Your task to perform on an android device: see creations saved in the google photos Image 0: 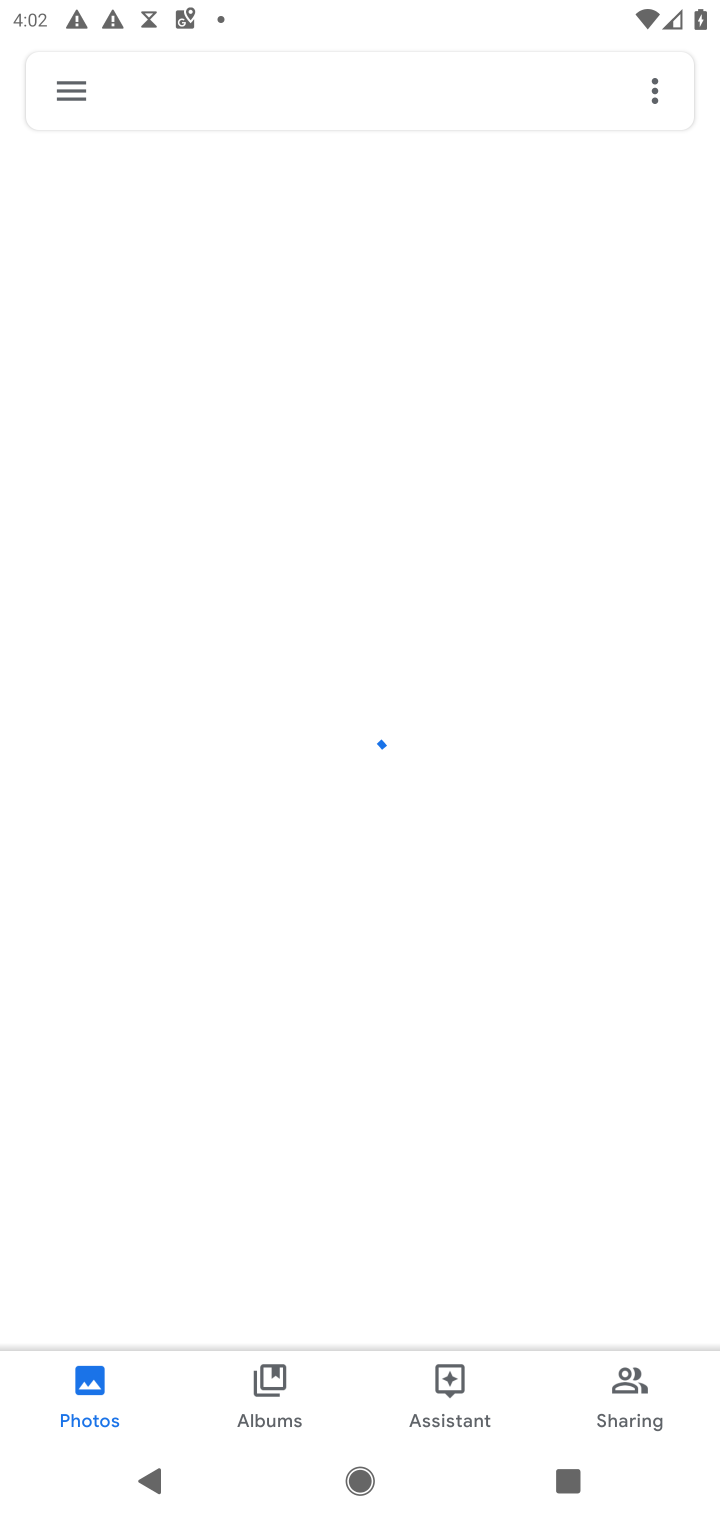
Step 0: press home button
Your task to perform on an android device: see creations saved in the google photos Image 1: 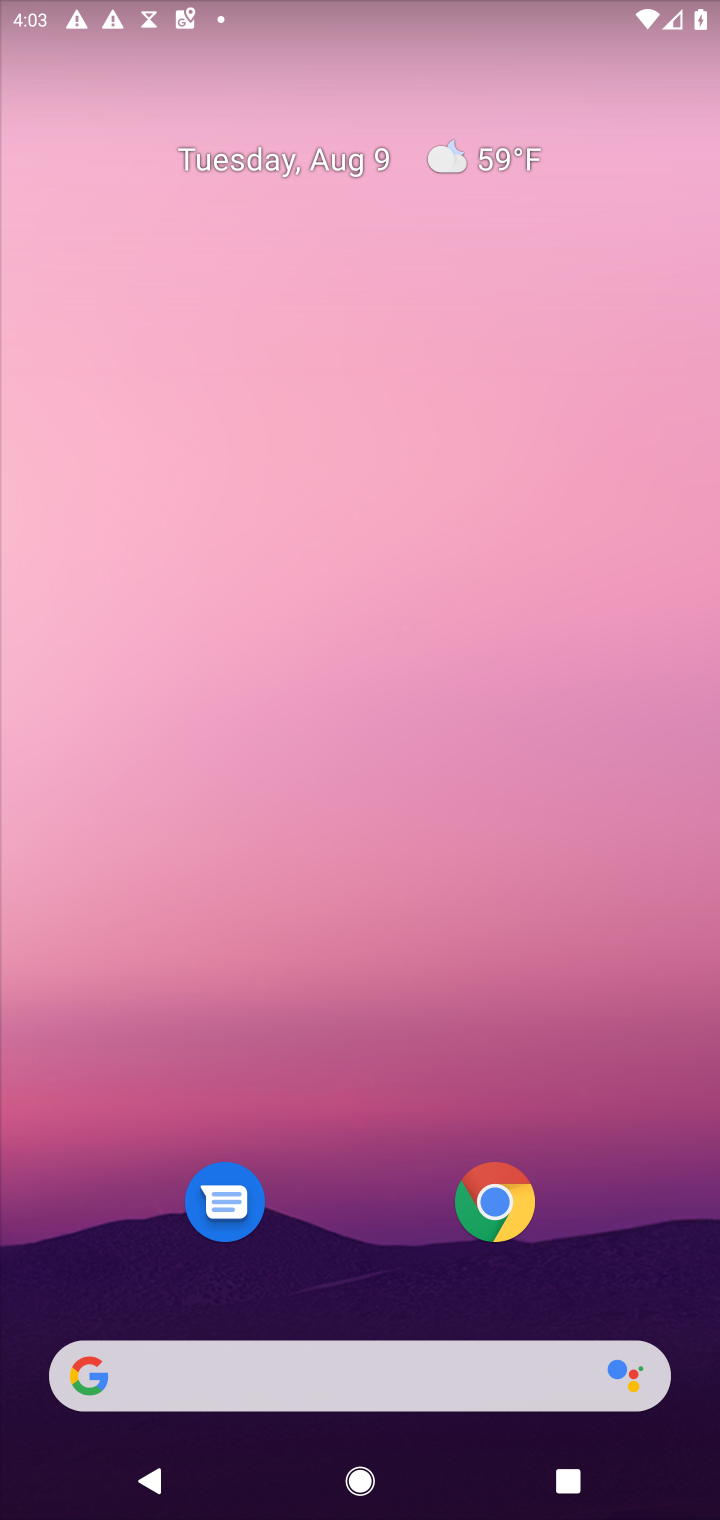
Step 1: drag from (369, 1272) to (168, 31)
Your task to perform on an android device: see creations saved in the google photos Image 2: 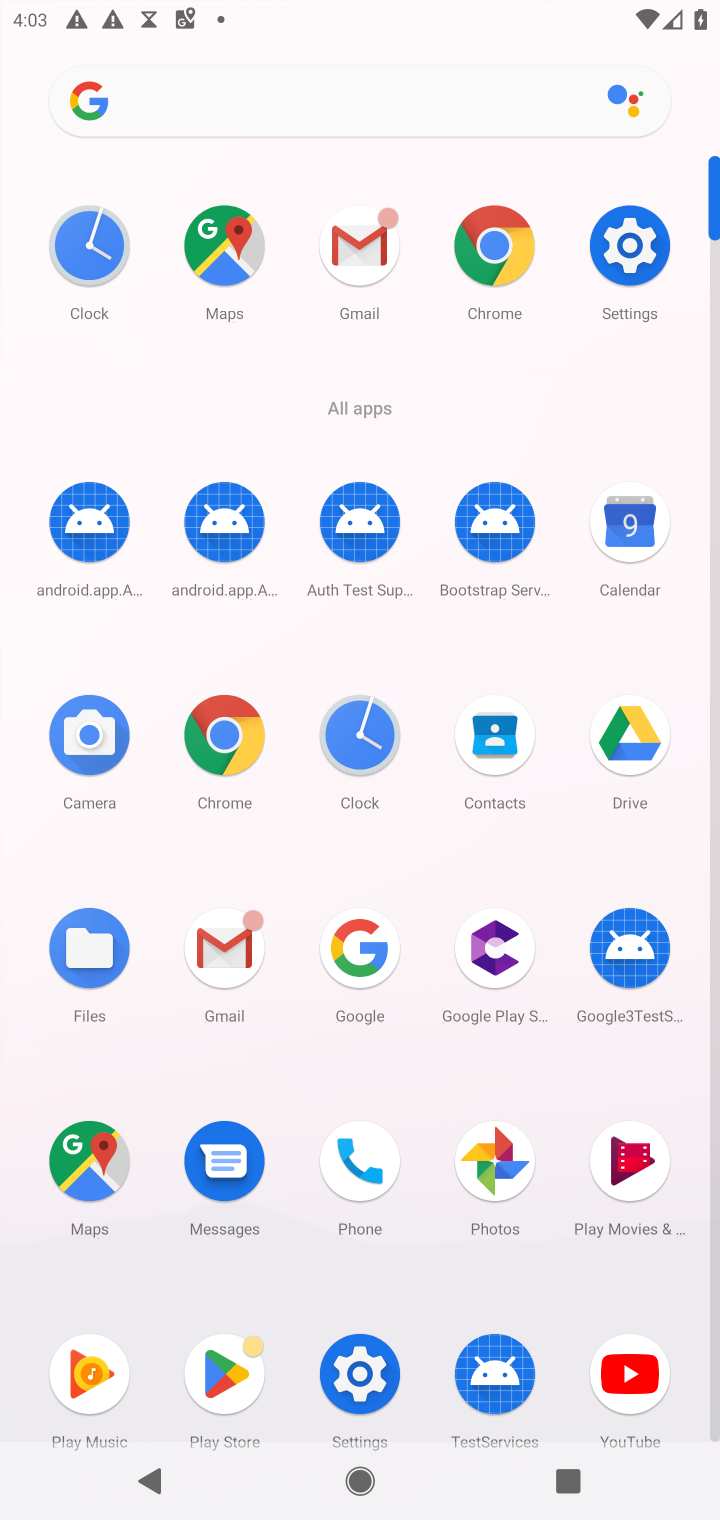
Step 2: click (492, 1149)
Your task to perform on an android device: see creations saved in the google photos Image 3: 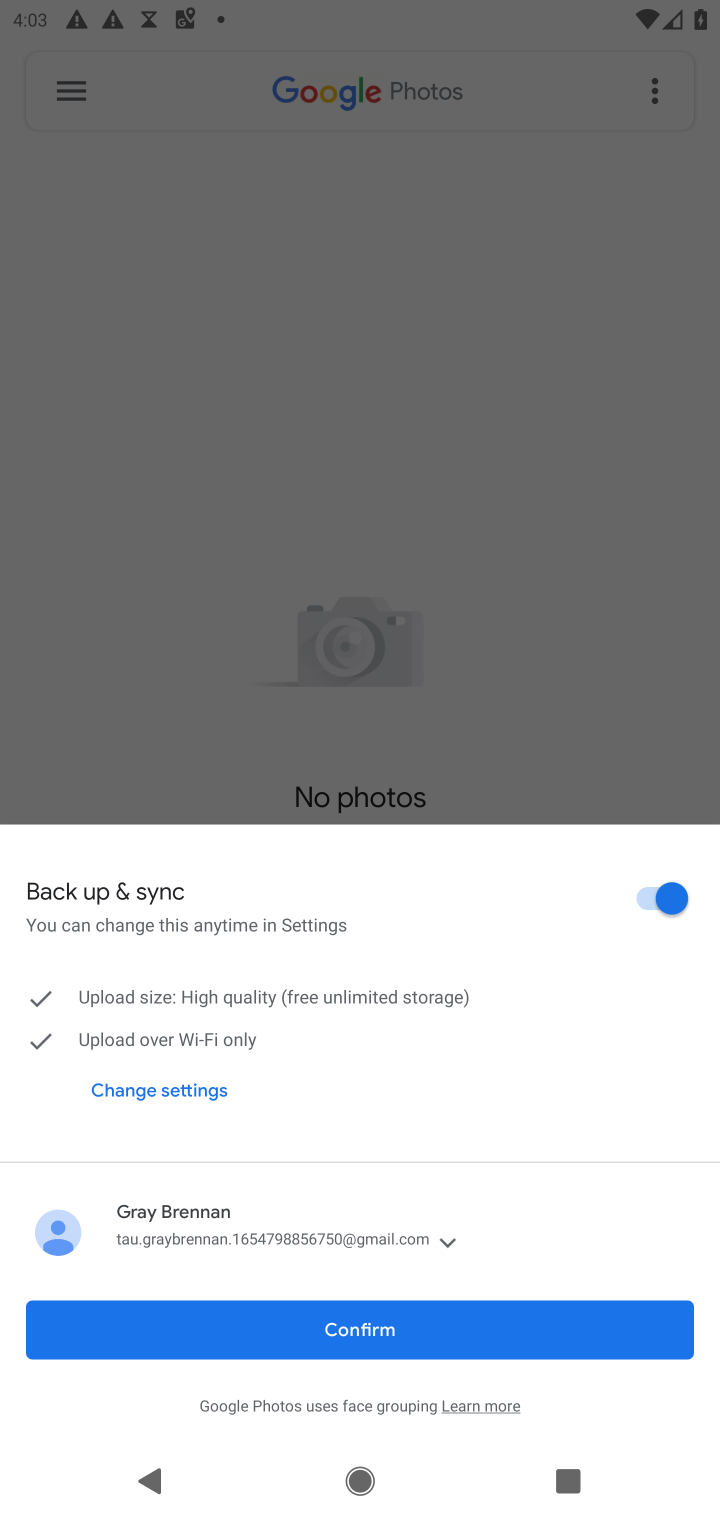
Step 3: click (375, 1320)
Your task to perform on an android device: see creations saved in the google photos Image 4: 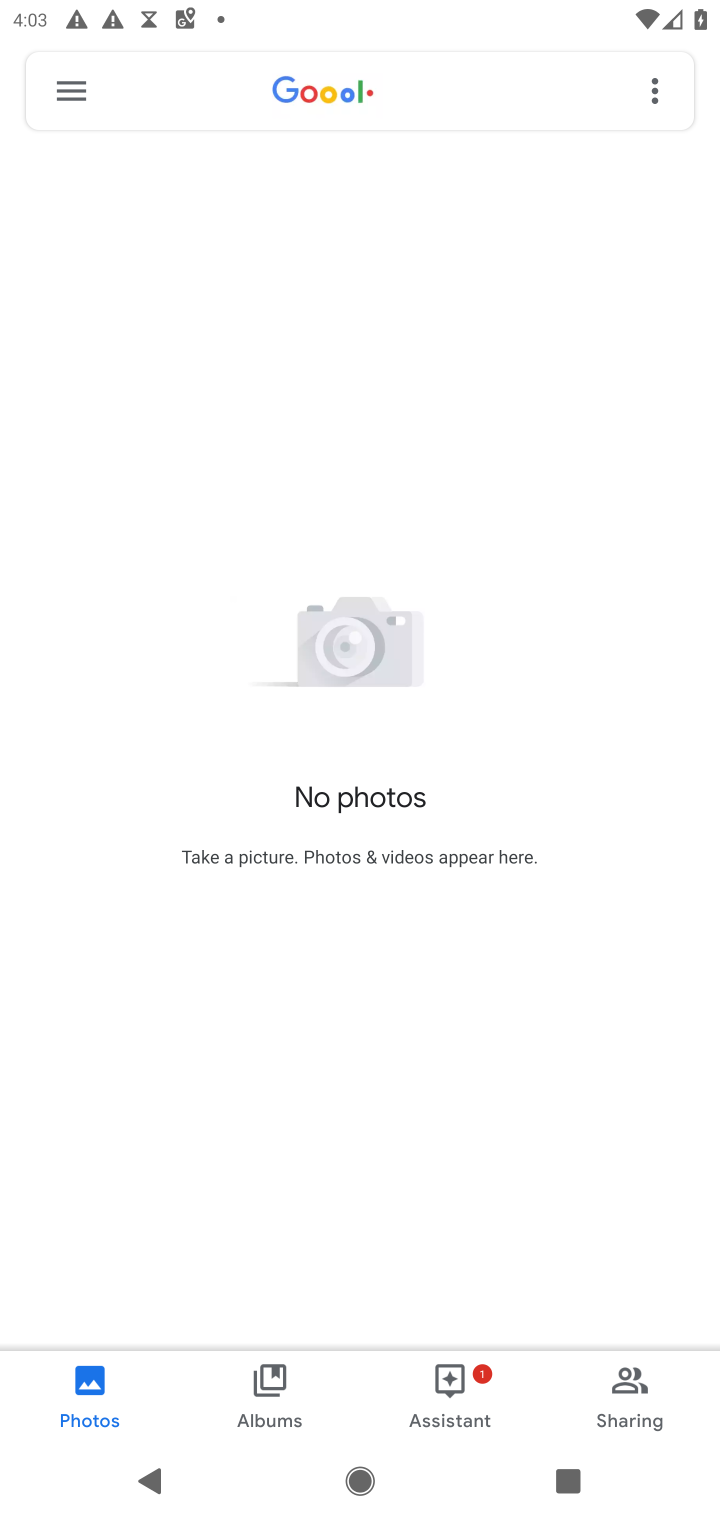
Step 4: click (276, 79)
Your task to perform on an android device: see creations saved in the google photos Image 5: 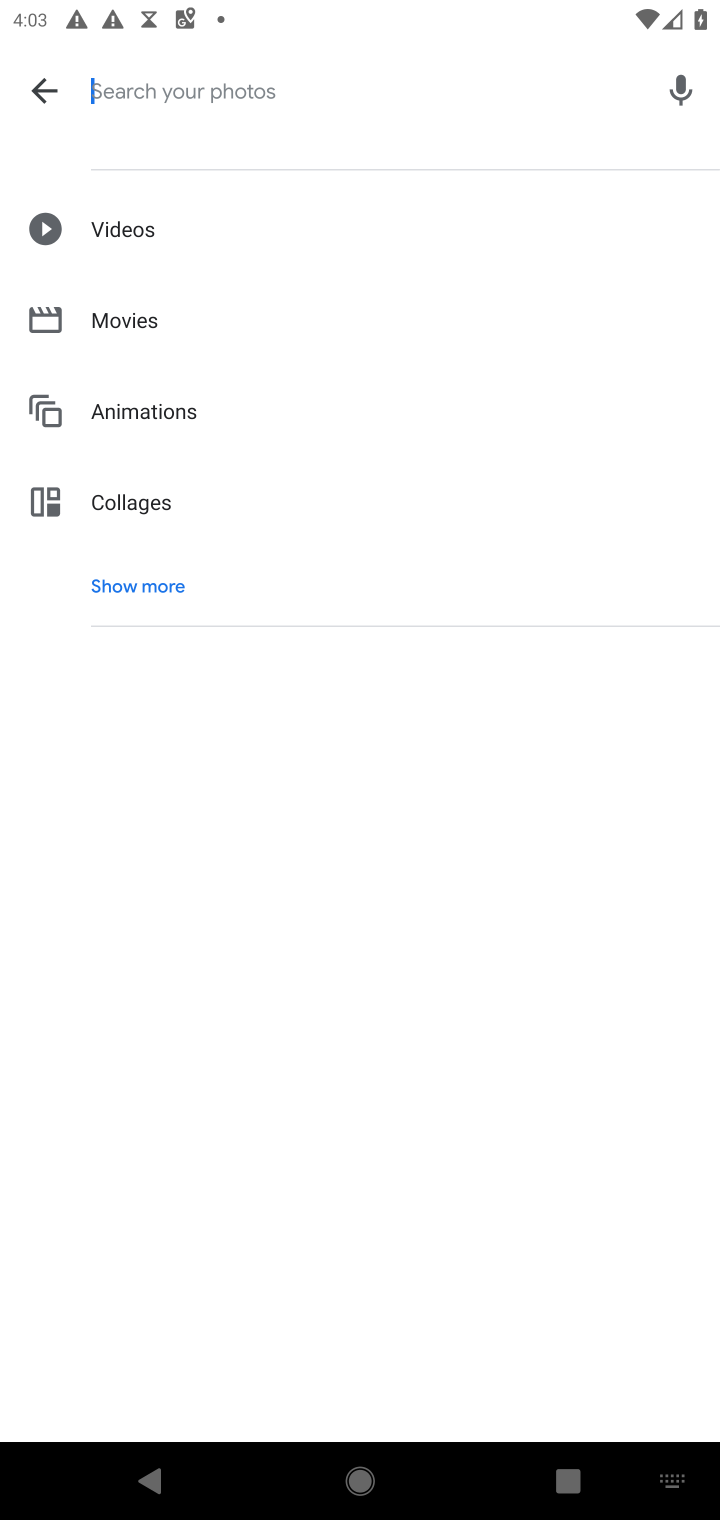
Step 5: click (180, 571)
Your task to perform on an android device: see creations saved in the google photos Image 6: 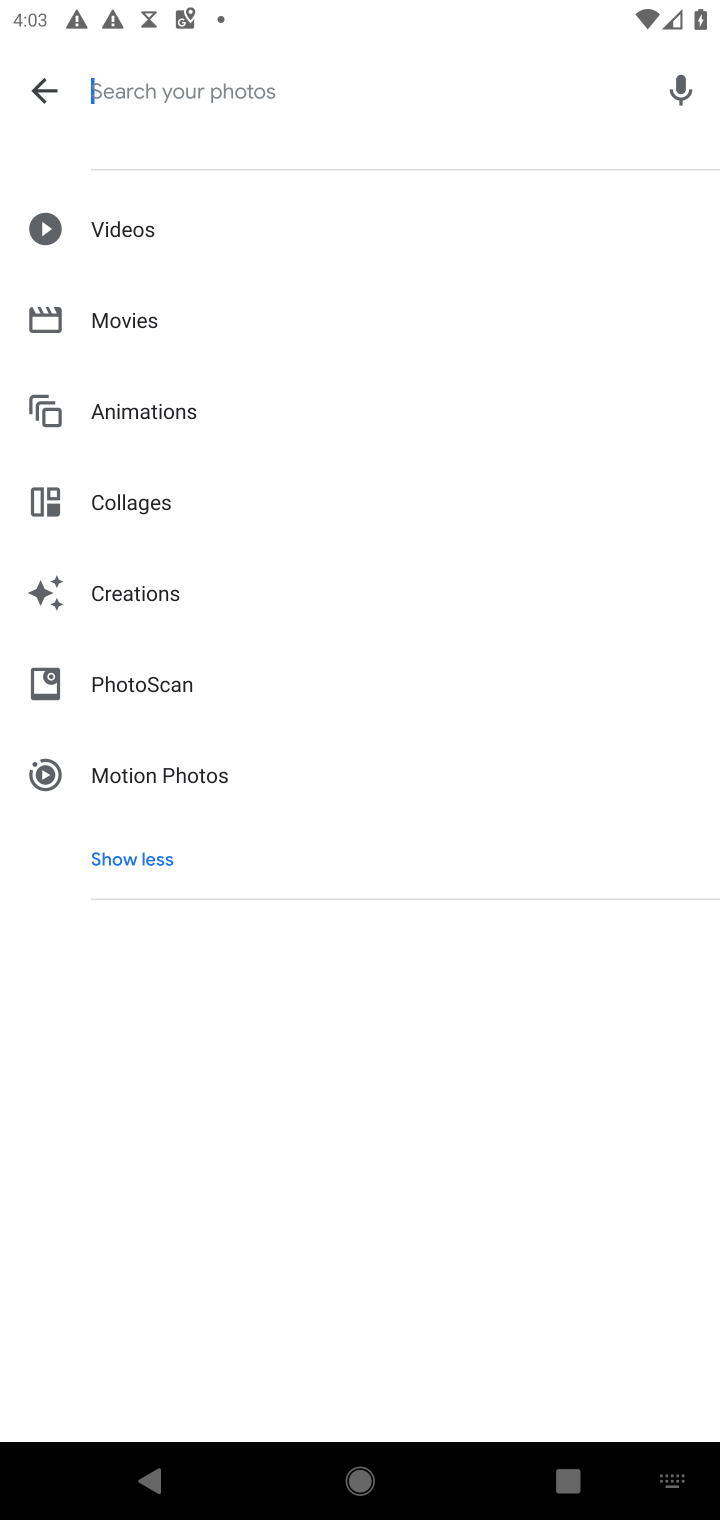
Step 6: click (166, 586)
Your task to perform on an android device: see creations saved in the google photos Image 7: 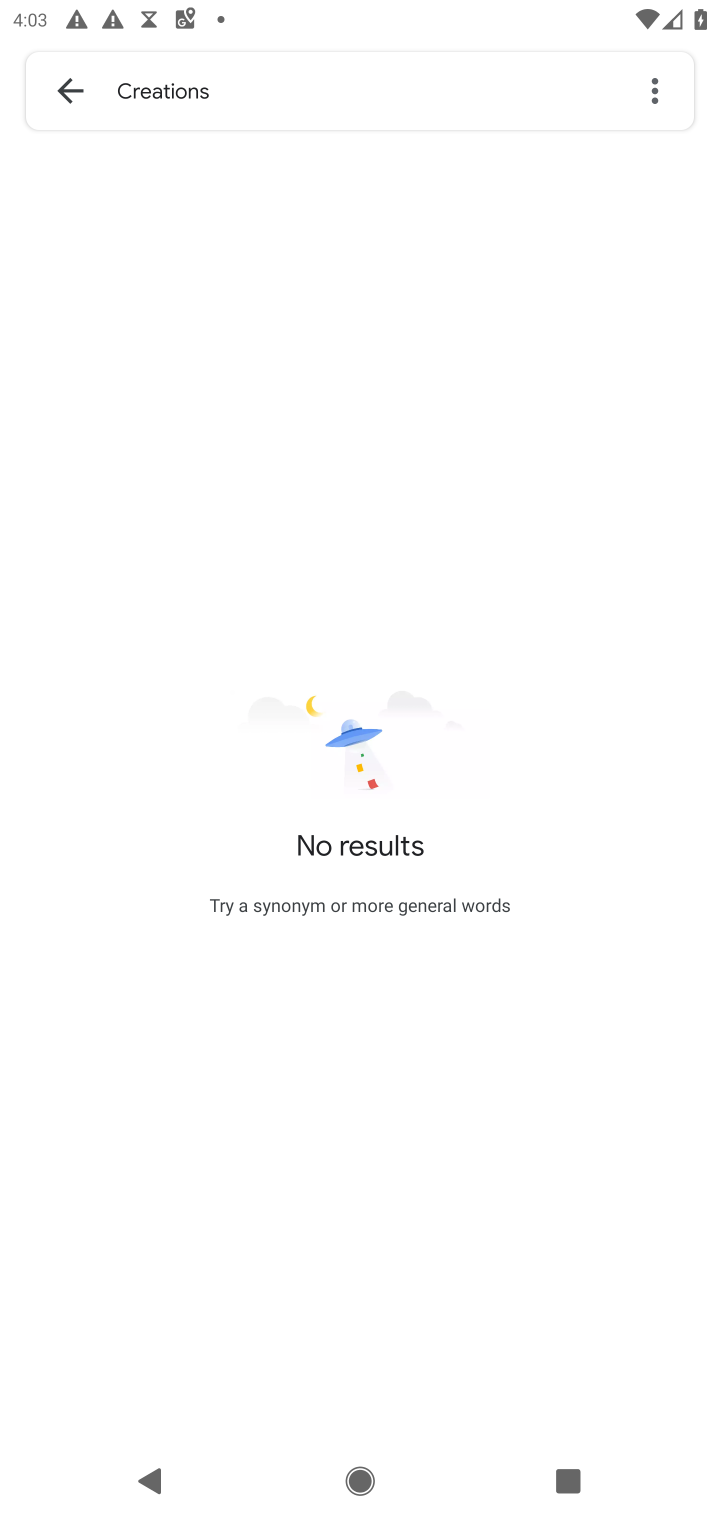
Step 7: task complete